Your task to perform on an android device: turn pop-ups on in chrome Image 0: 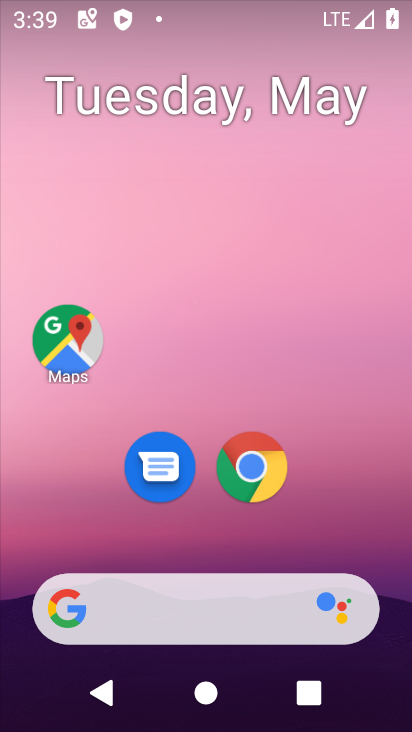
Step 0: click (252, 456)
Your task to perform on an android device: turn pop-ups on in chrome Image 1: 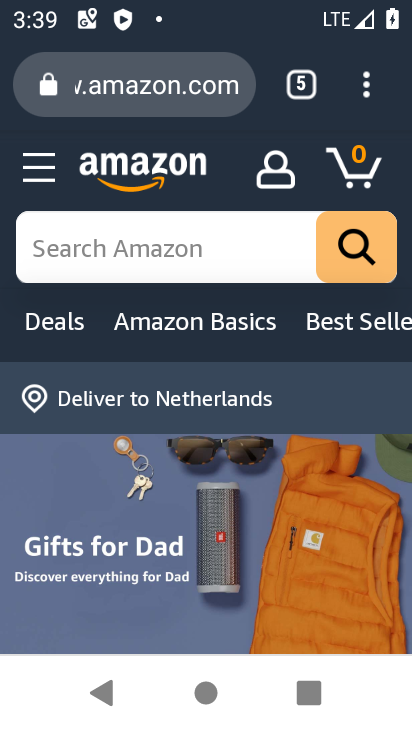
Step 1: drag from (370, 83) to (177, 525)
Your task to perform on an android device: turn pop-ups on in chrome Image 2: 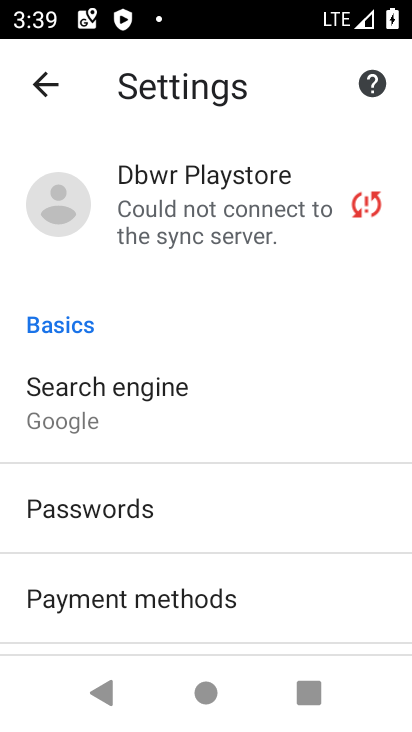
Step 2: drag from (379, 615) to (281, 11)
Your task to perform on an android device: turn pop-ups on in chrome Image 3: 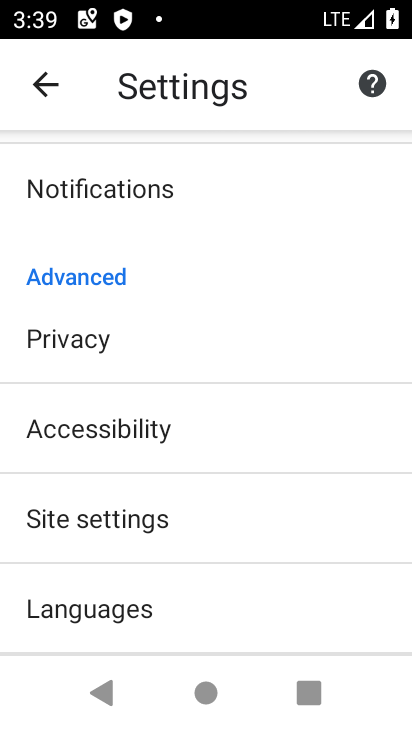
Step 3: click (110, 521)
Your task to perform on an android device: turn pop-ups on in chrome Image 4: 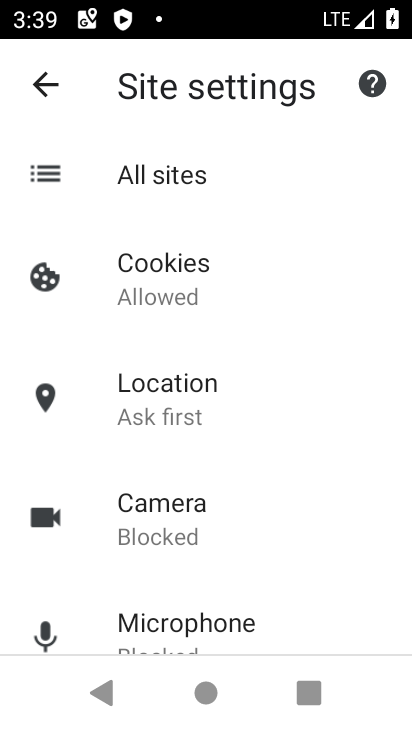
Step 4: drag from (320, 609) to (309, 174)
Your task to perform on an android device: turn pop-ups on in chrome Image 5: 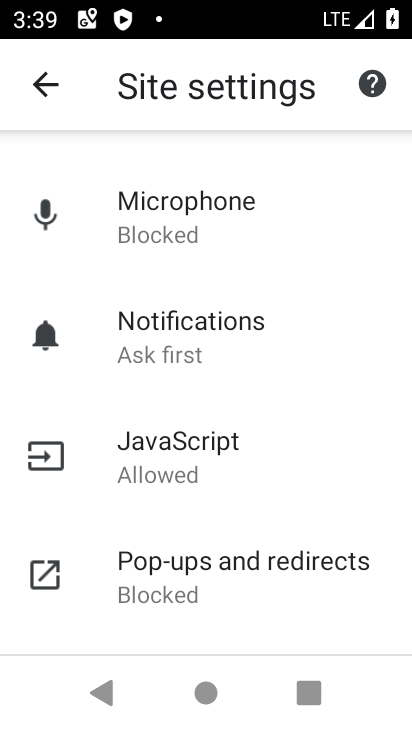
Step 5: click (176, 578)
Your task to perform on an android device: turn pop-ups on in chrome Image 6: 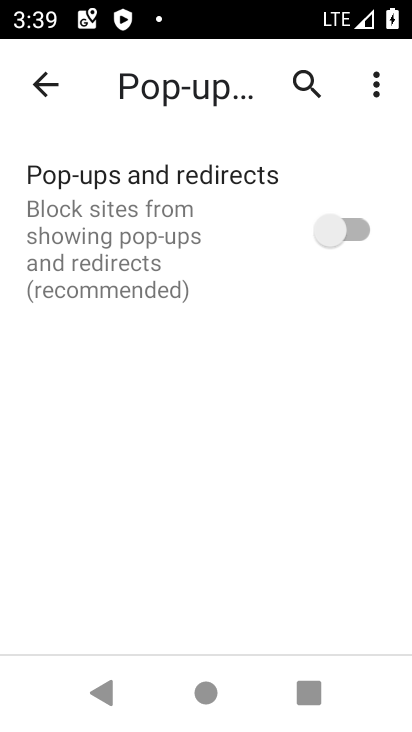
Step 6: click (345, 225)
Your task to perform on an android device: turn pop-ups on in chrome Image 7: 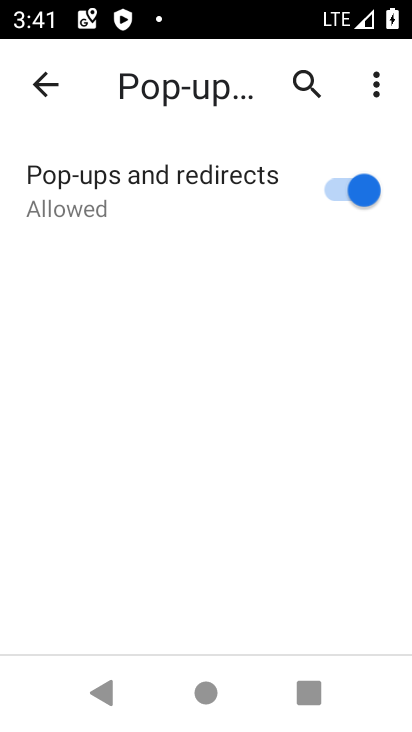
Step 7: task complete